Your task to perform on an android device: Go to Yahoo.com Image 0: 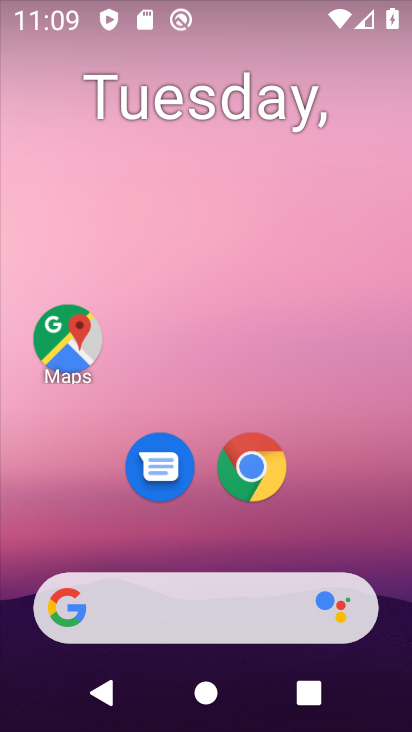
Step 0: click (253, 459)
Your task to perform on an android device: Go to Yahoo.com Image 1: 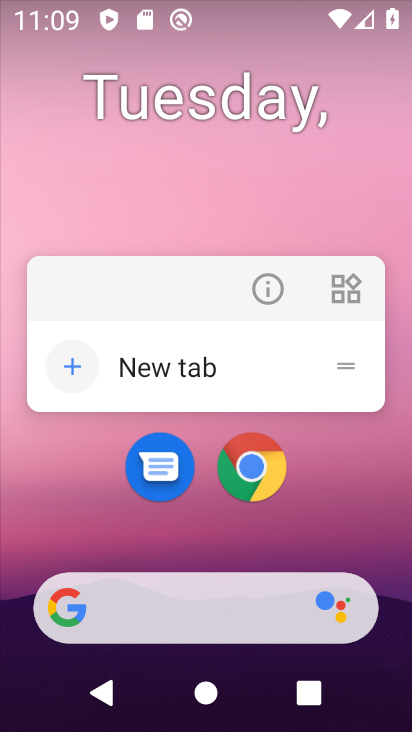
Step 1: click (240, 464)
Your task to perform on an android device: Go to Yahoo.com Image 2: 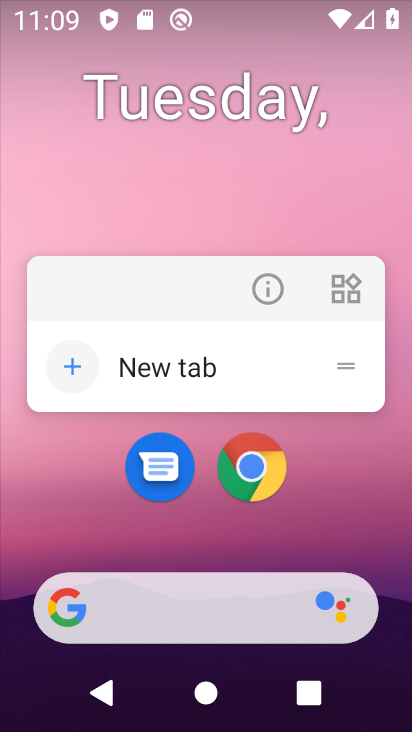
Step 2: click (241, 464)
Your task to perform on an android device: Go to Yahoo.com Image 3: 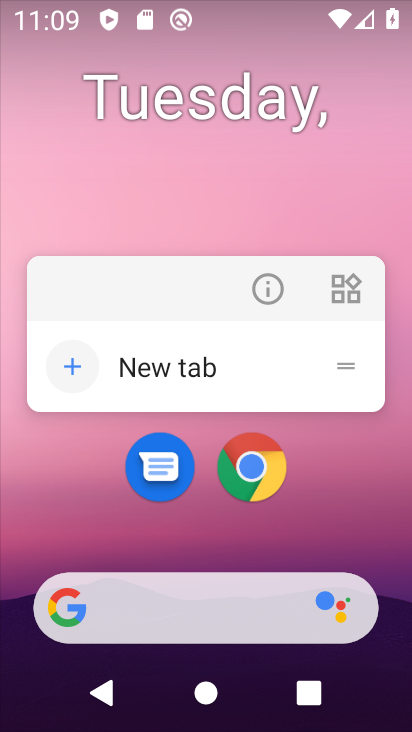
Step 3: click (254, 463)
Your task to perform on an android device: Go to Yahoo.com Image 4: 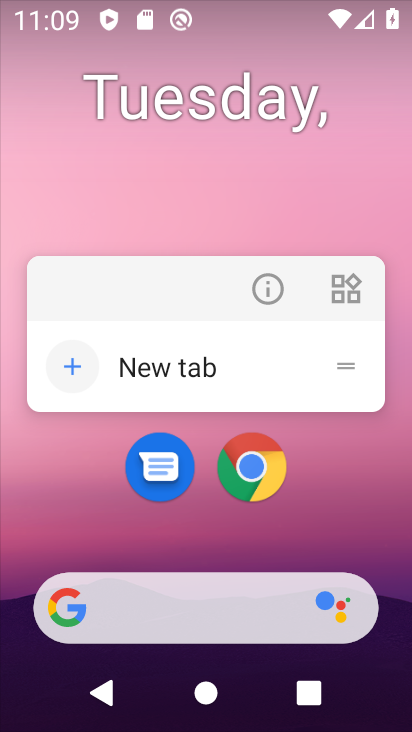
Step 4: click (255, 462)
Your task to perform on an android device: Go to Yahoo.com Image 5: 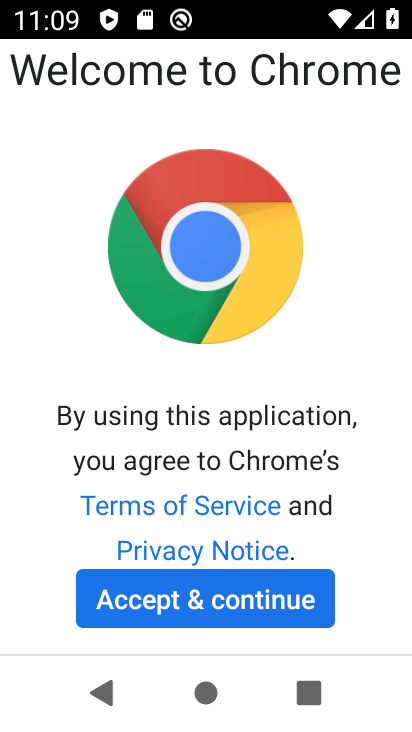
Step 5: click (219, 606)
Your task to perform on an android device: Go to Yahoo.com Image 6: 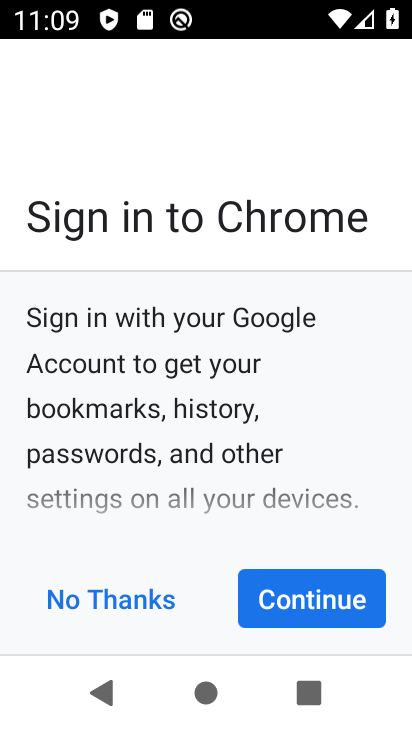
Step 6: click (366, 606)
Your task to perform on an android device: Go to Yahoo.com Image 7: 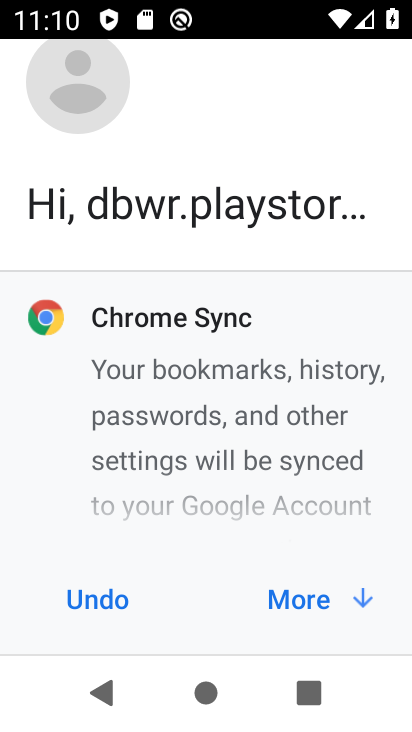
Step 7: click (364, 604)
Your task to perform on an android device: Go to Yahoo.com Image 8: 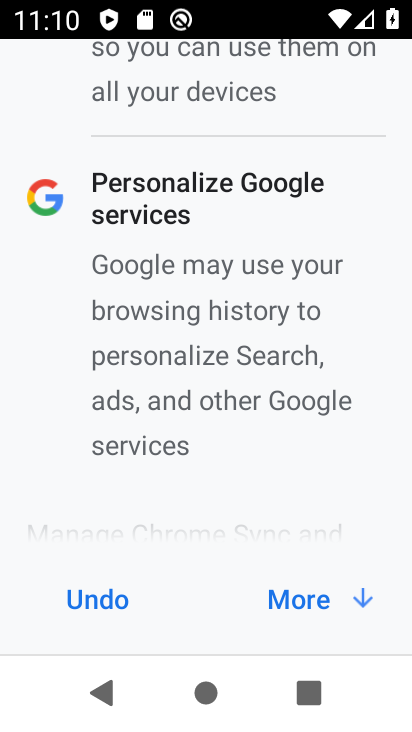
Step 8: click (364, 604)
Your task to perform on an android device: Go to Yahoo.com Image 9: 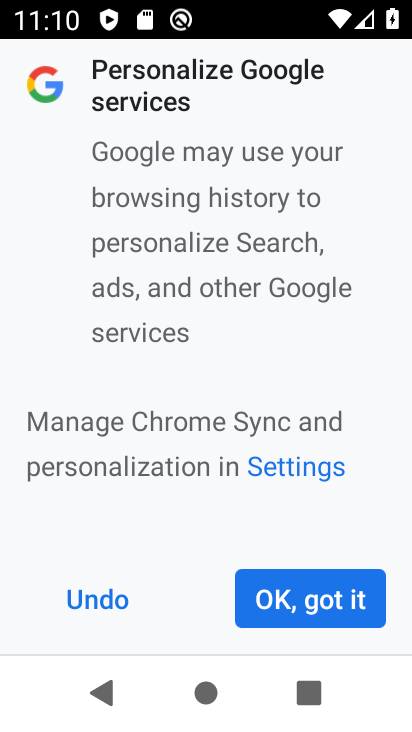
Step 9: click (364, 604)
Your task to perform on an android device: Go to Yahoo.com Image 10: 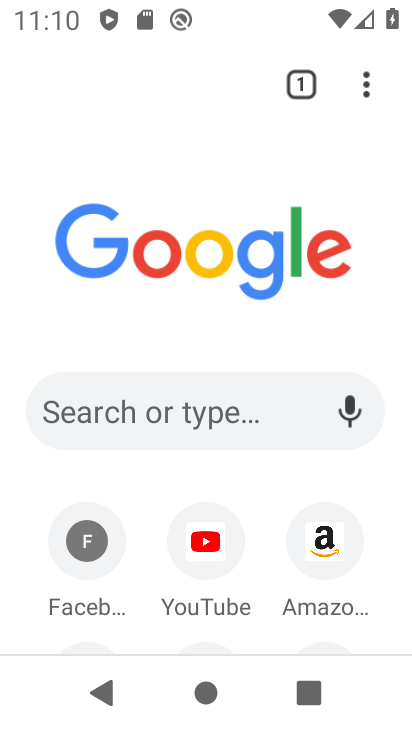
Step 10: drag from (210, 593) to (293, 386)
Your task to perform on an android device: Go to Yahoo.com Image 11: 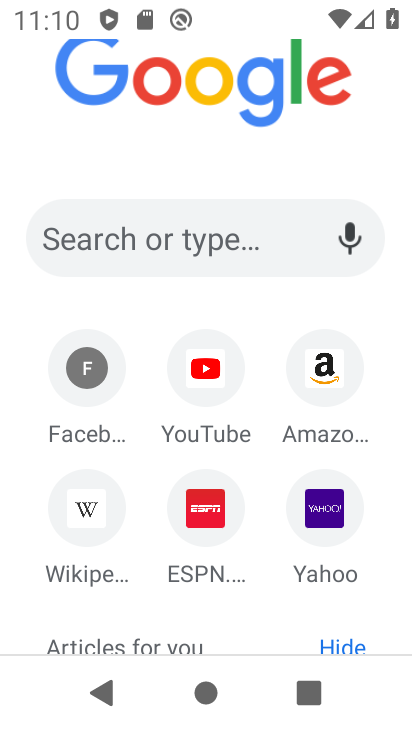
Step 11: click (312, 516)
Your task to perform on an android device: Go to Yahoo.com Image 12: 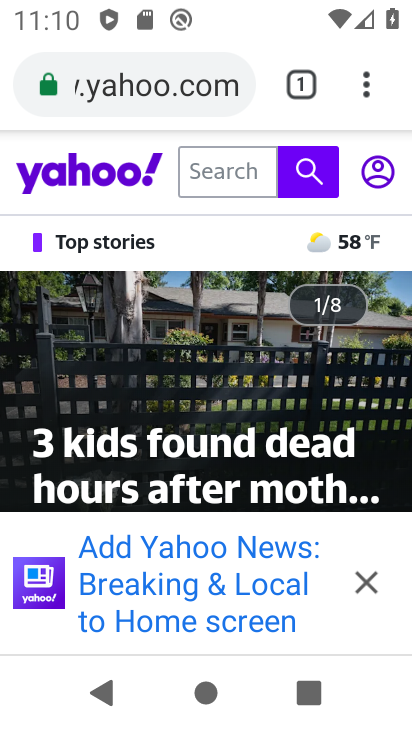
Step 12: task complete